Your task to perform on an android device: star an email in the gmail app Image 0: 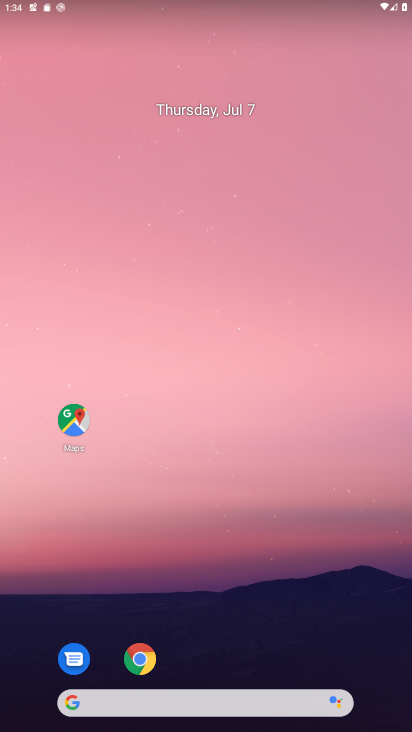
Step 0: drag from (198, 656) to (241, 284)
Your task to perform on an android device: star an email in the gmail app Image 1: 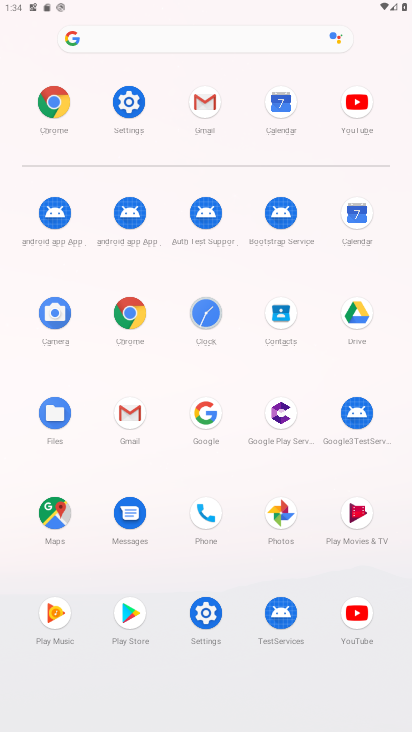
Step 1: click (197, 98)
Your task to perform on an android device: star an email in the gmail app Image 2: 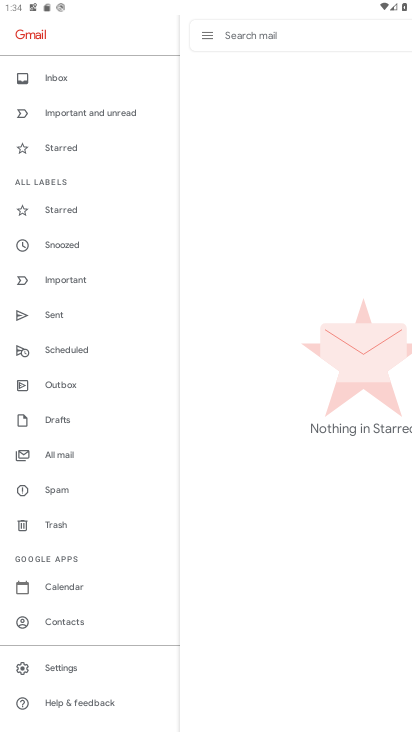
Step 2: click (305, 268)
Your task to perform on an android device: star an email in the gmail app Image 3: 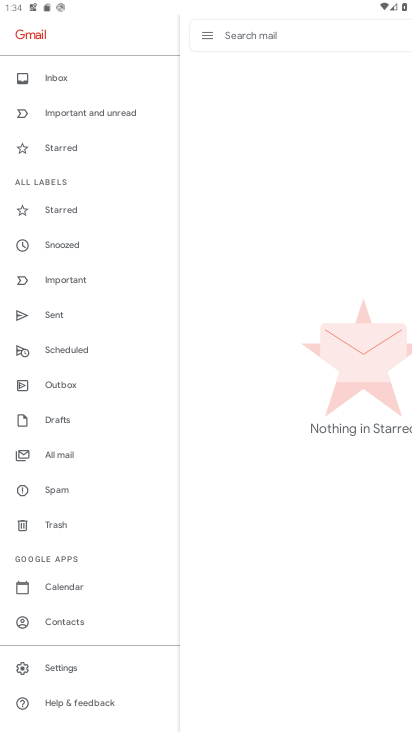
Step 3: task complete